Your task to perform on an android device: Add macbook pro 15 inch to the cart on newegg.com, then select checkout. Image 0: 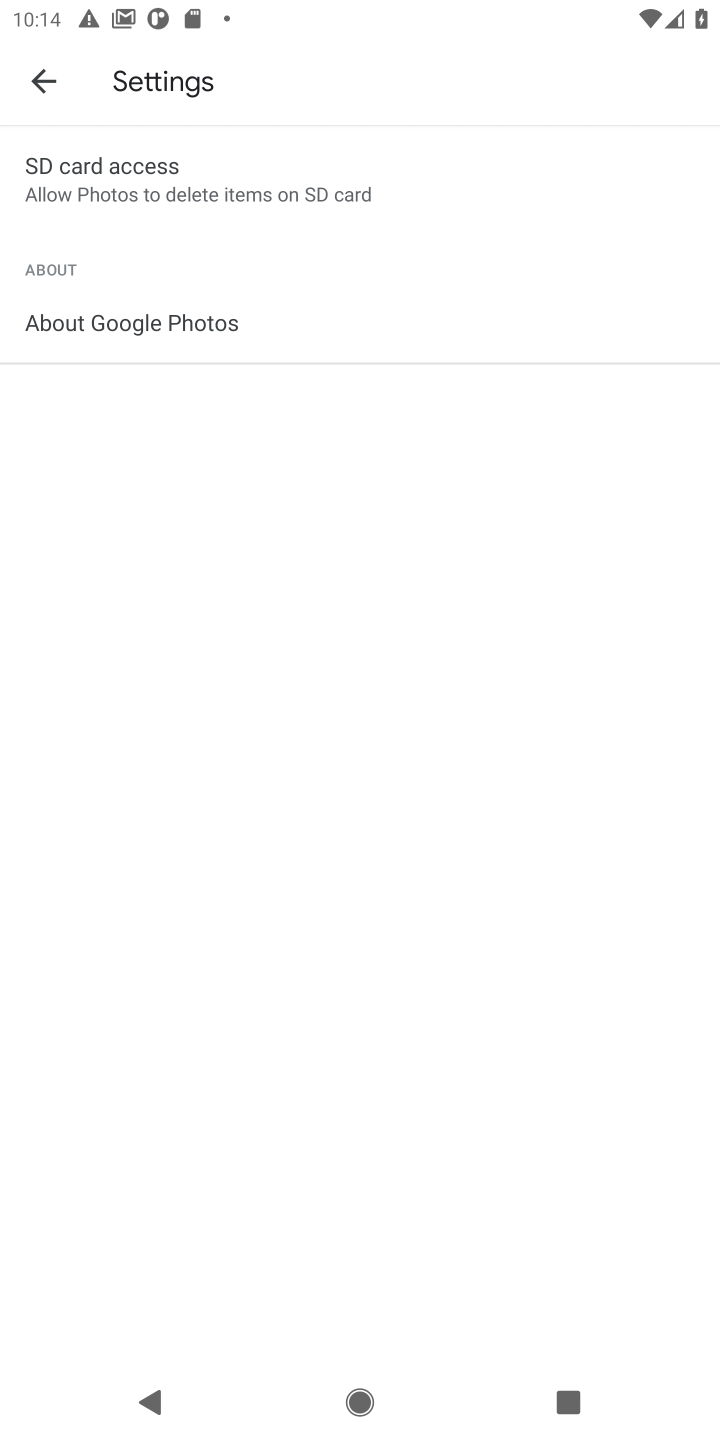
Step 0: press home button
Your task to perform on an android device: Add macbook pro 15 inch to the cart on newegg.com, then select checkout. Image 1: 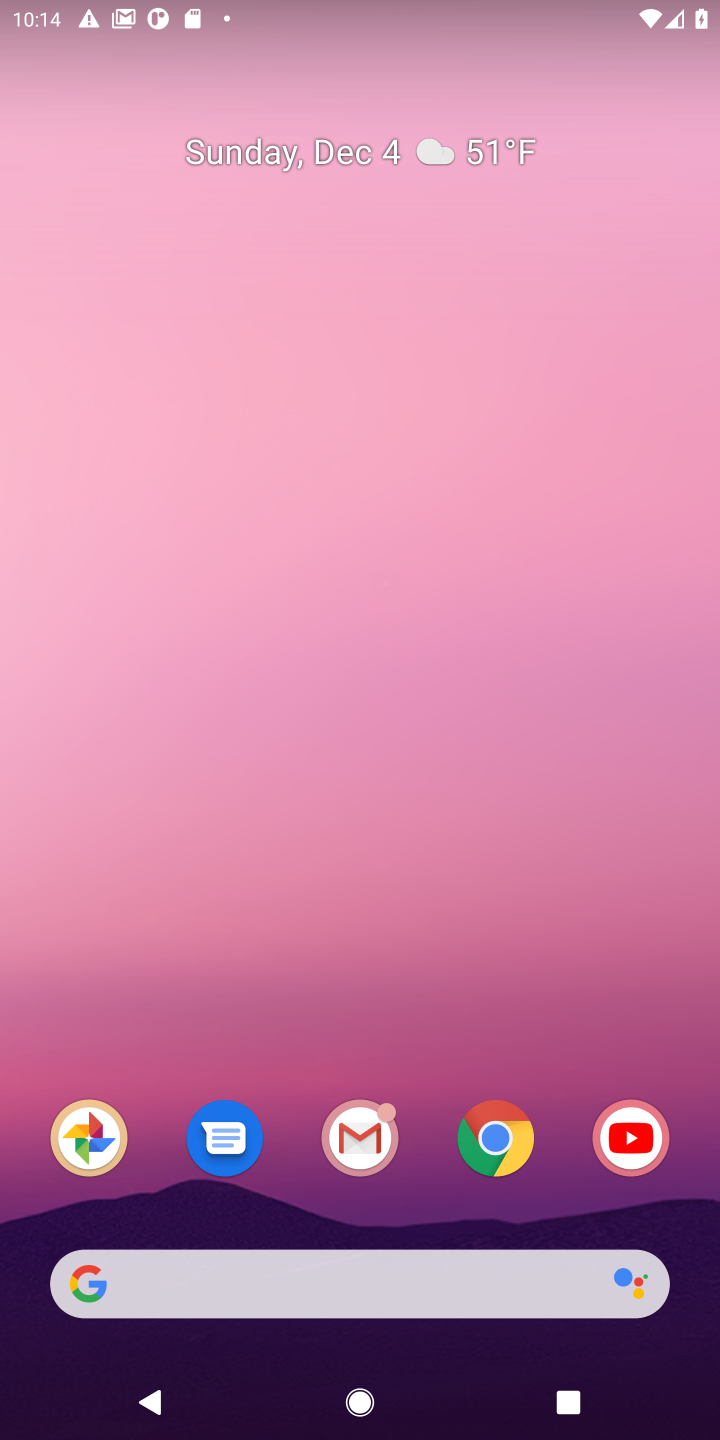
Step 1: click (500, 1131)
Your task to perform on an android device: Add macbook pro 15 inch to the cart on newegg.com, then select checkout. Image 2: 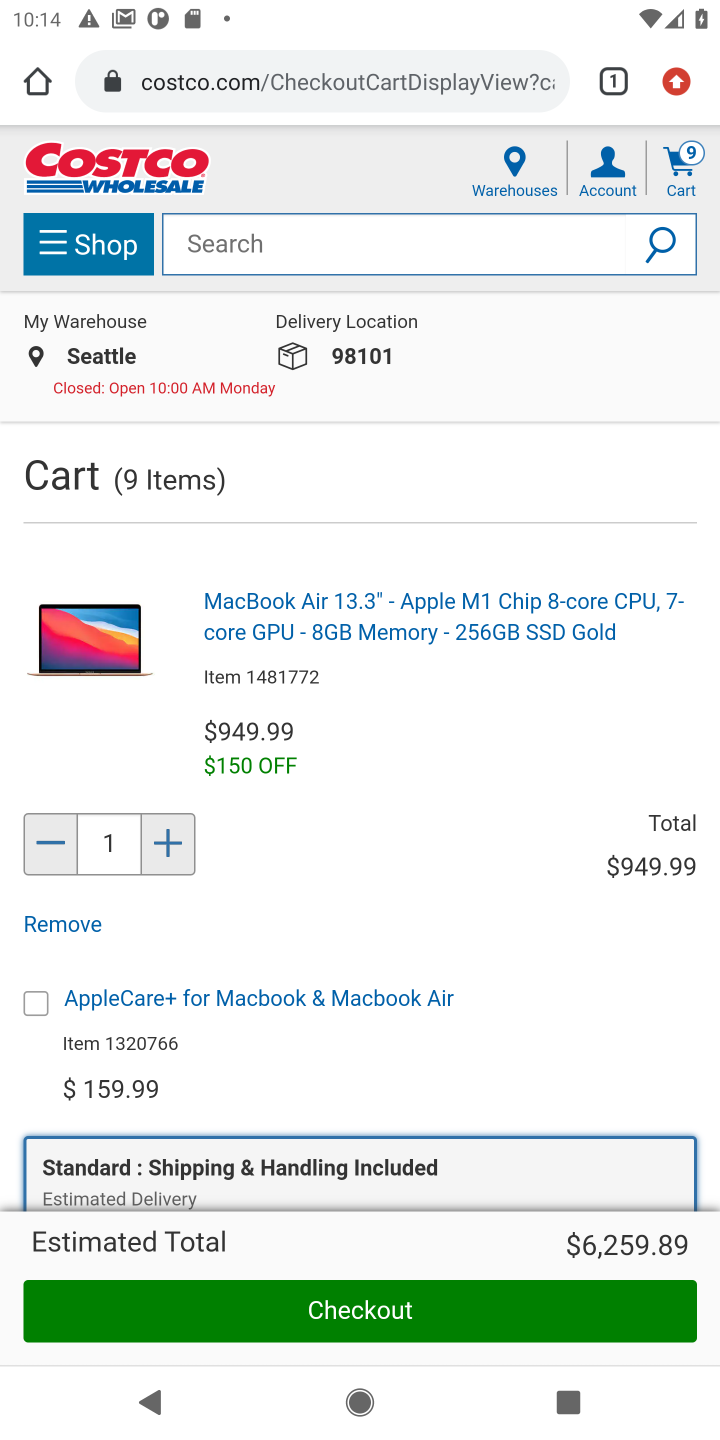
Step 2: click (379, 70)
Your task to perform on an android device: Add macbook pro 15 inch to the cart on newegg.com, then select checkout. Image 3: 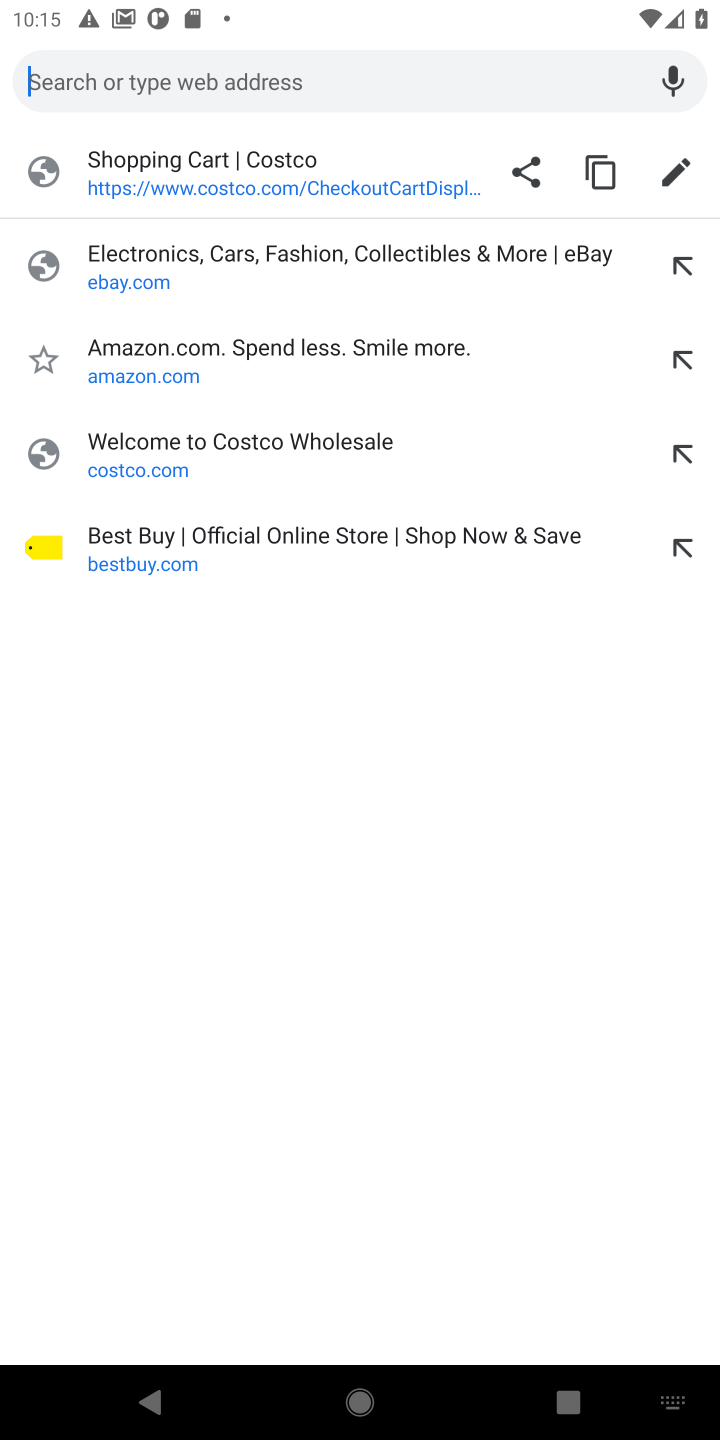
Step 3: type "newegg.com"
Your task to perform on an android device: Add macbook pro 15 inch to the cart on newegg.com, then select checkout. Image 4: 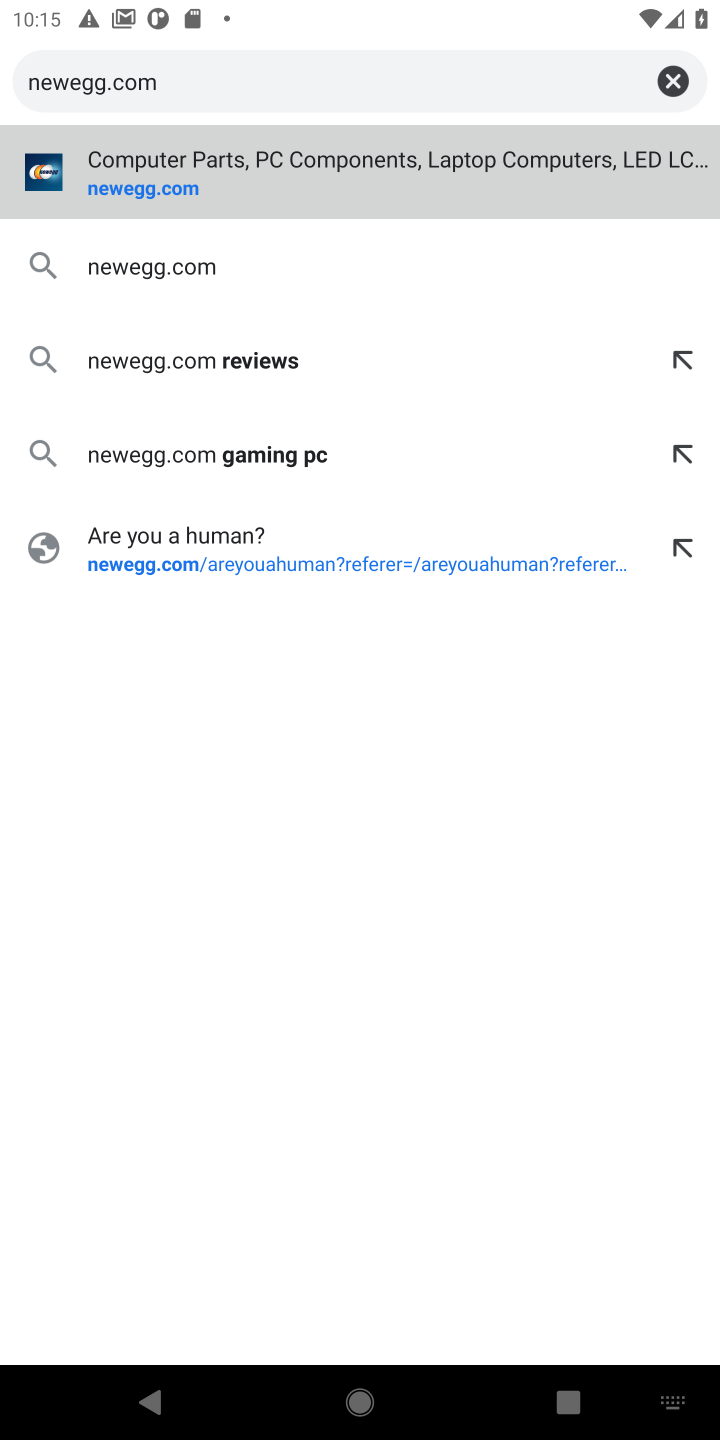
Step 4: press enter
Your task to perform on an android device: Add macbook pro 15 inch to the cart on newegg.com, then select checkout. Image 5: 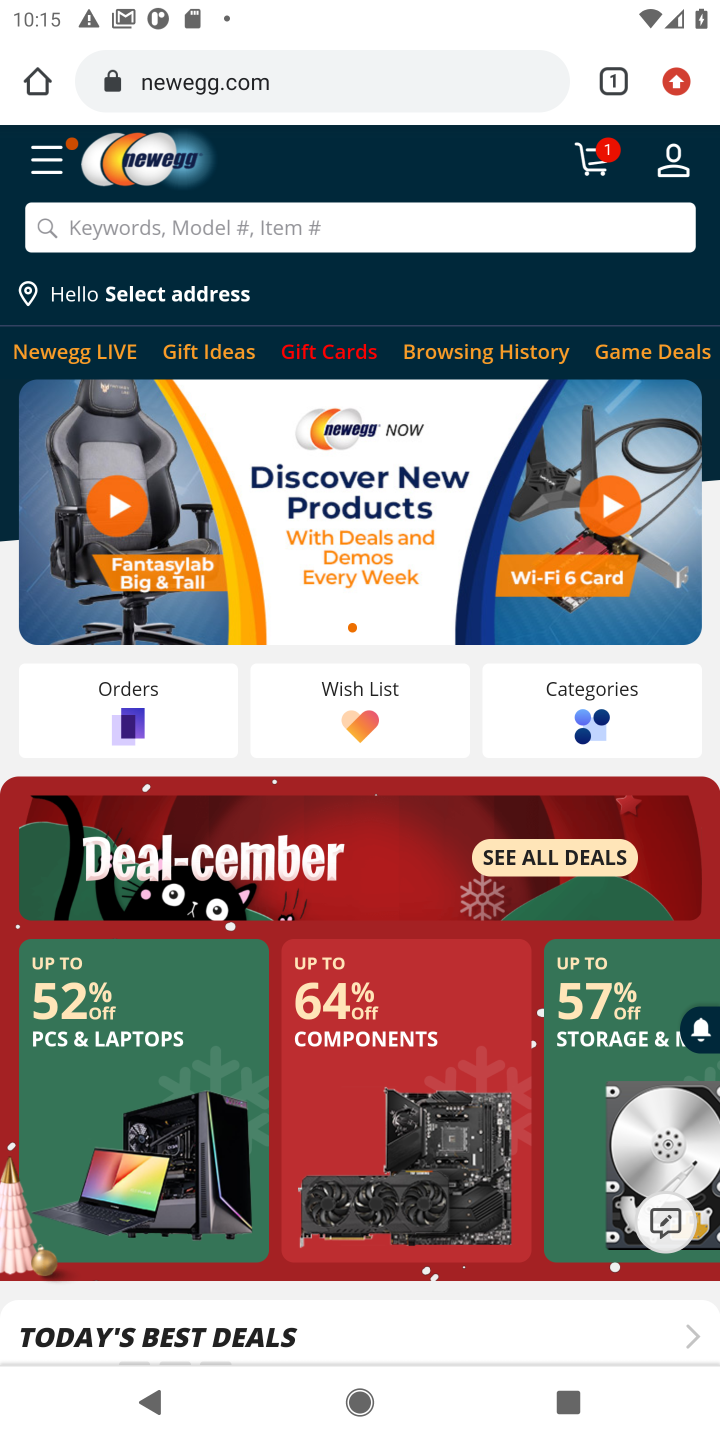
Step 5: click (598, 167)
Your task to perform on an android device: Add macbook pro 15 inch to the cart on newegg.com, then select checkout. Image 6: 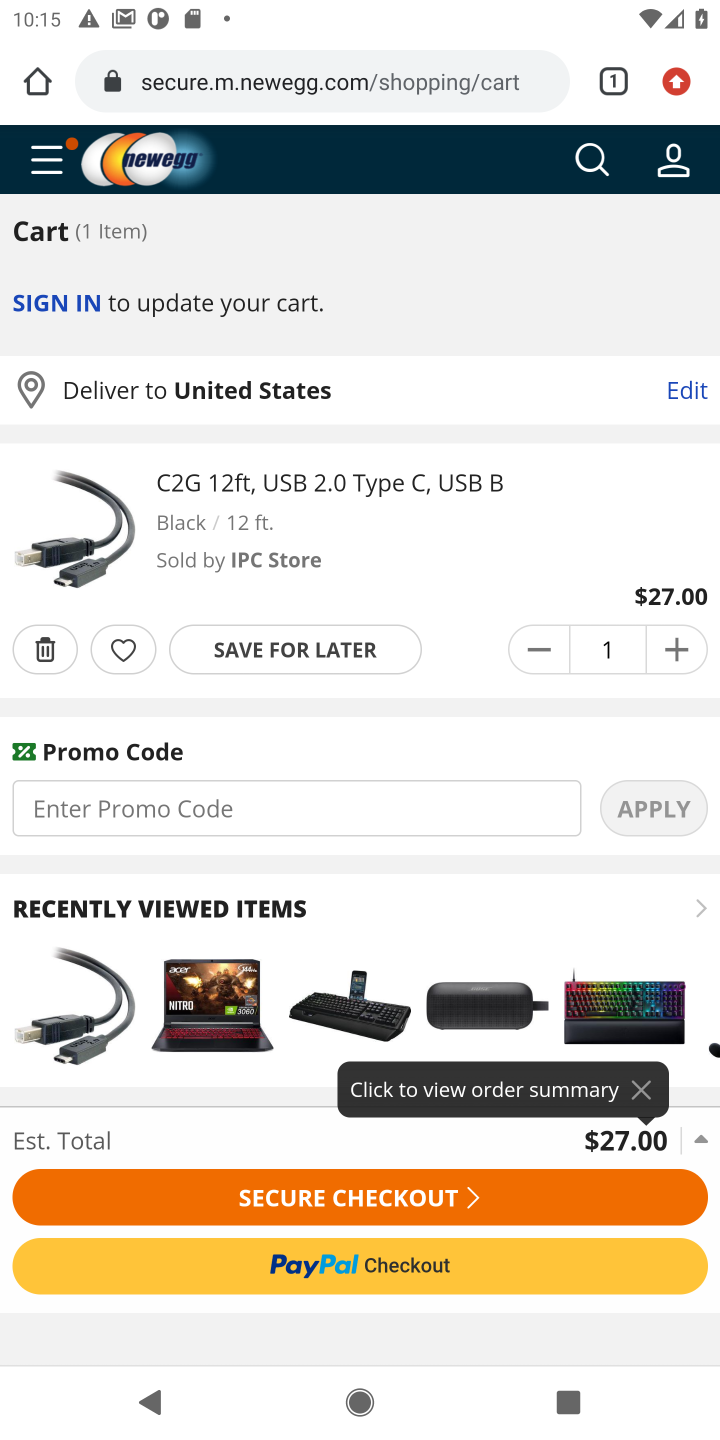
Step 6: click (587, 160)
Your task to perform on an android device: Add macbook pro 15 inch to the cart on newegg.com, then select checkout. Image 7: 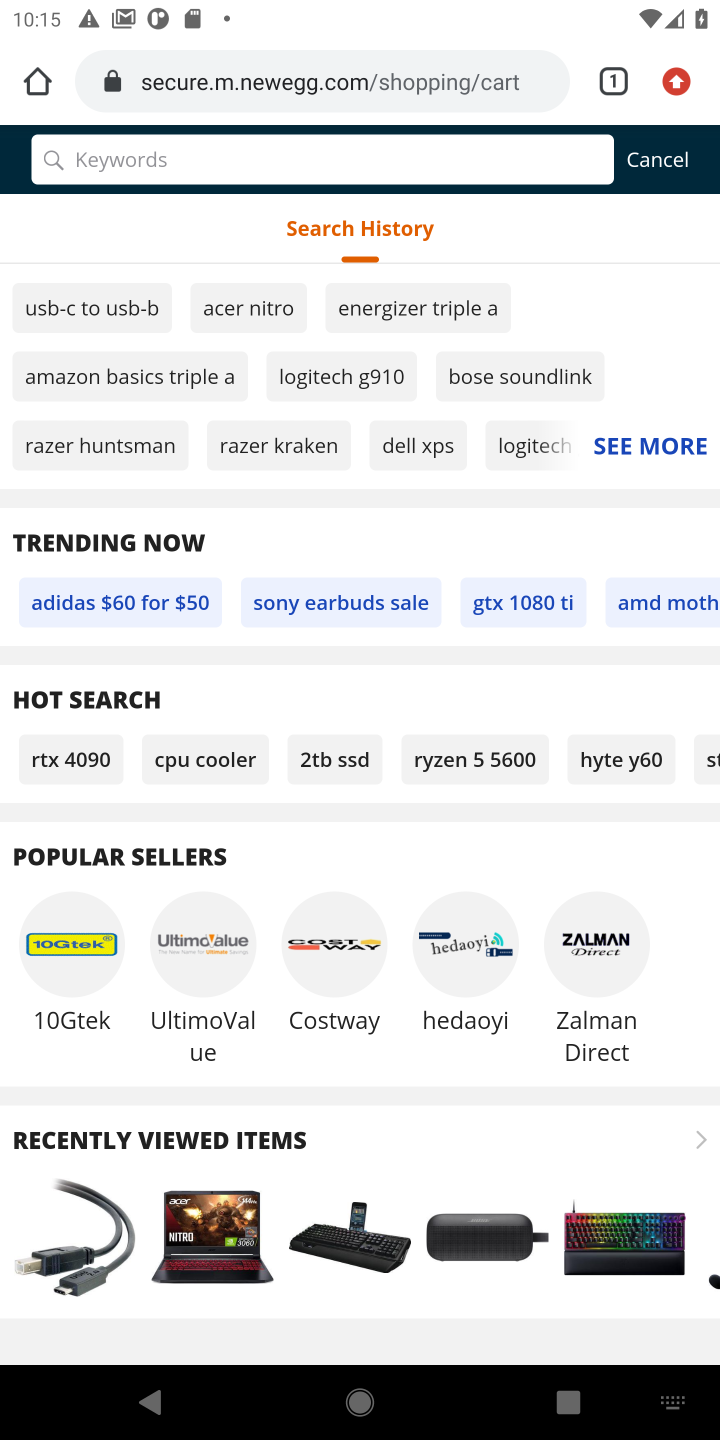
Step 7: type "macbook pro 15 inch"
Your task to perform on an android device: Add macbook pro 15 inch to the cart on newegg.com, then select checkout. Image 8: 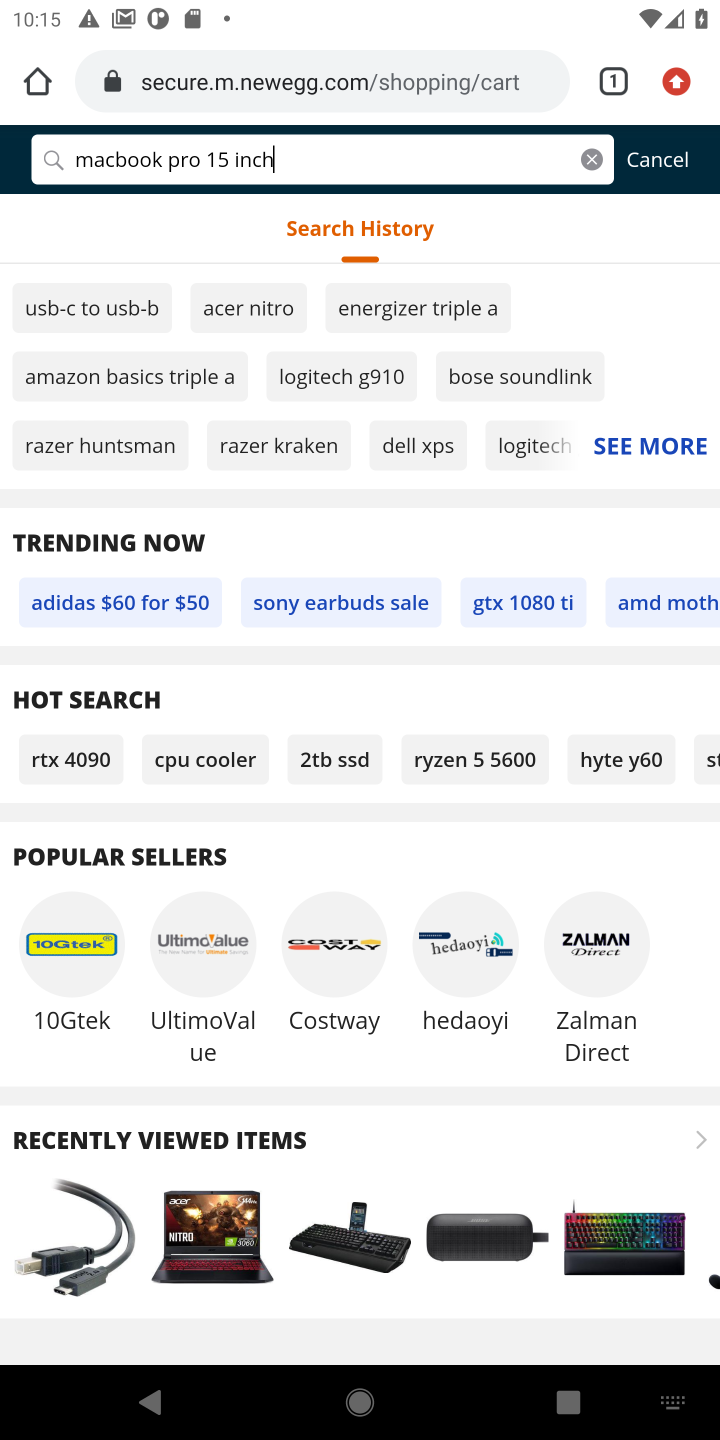
Step 8: press enter
Your task to perform on an android device: Add macbook pro 15 inch to the cart on newegg.com, then select checkout. Image 9: 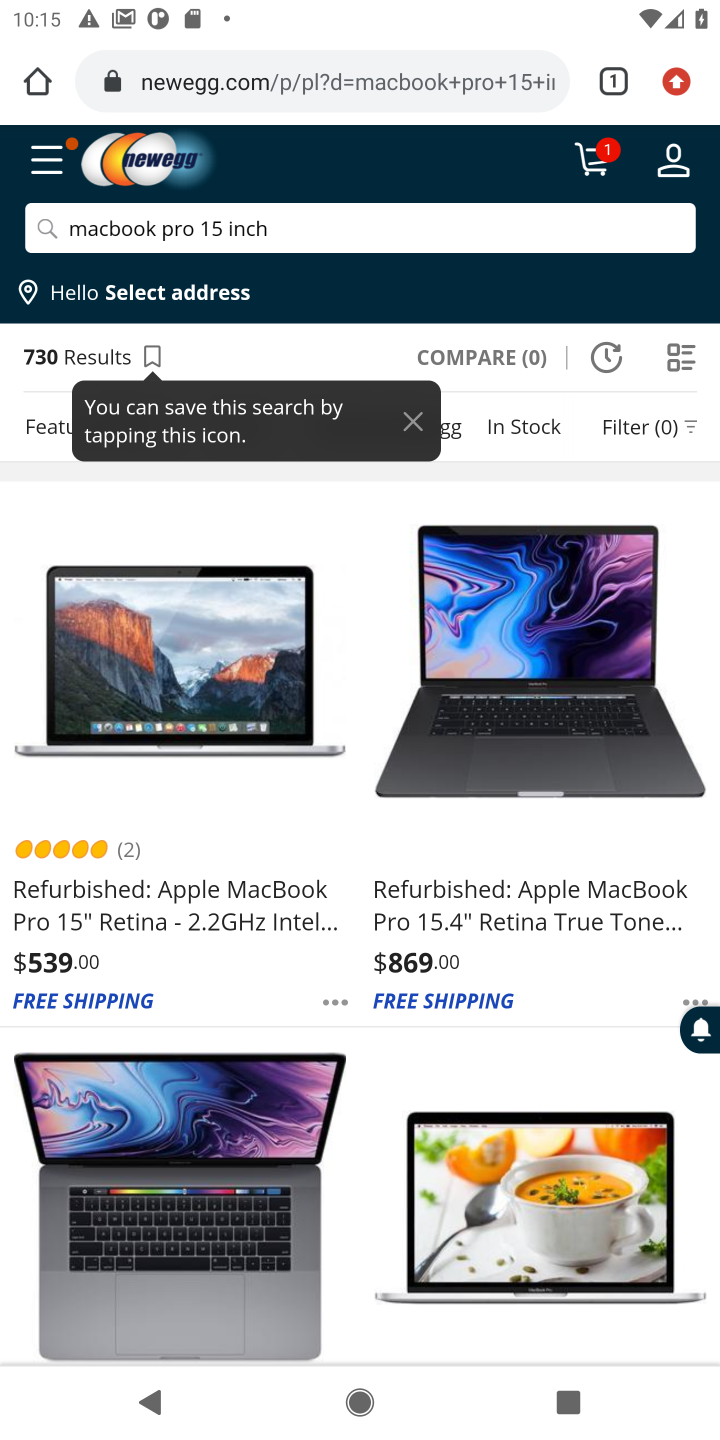
Step 9: click (248, 704)
Your task to perform on an android device: Add macbook pro 15 inch to the cart on newegg.com, then select checkout. Image 10: 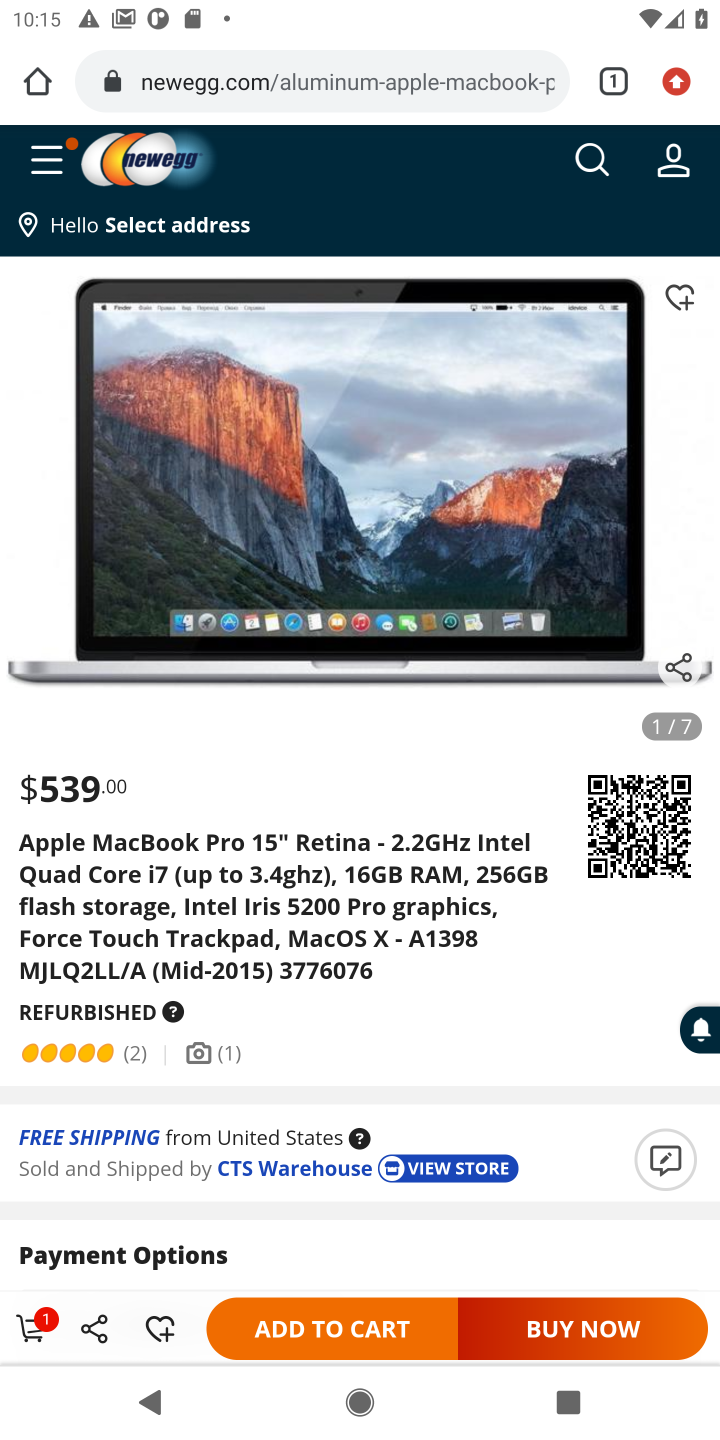
Step 10: click (349, 1324)
Your task to perform on an android device: Add macbook pro 15 inch to the cart on newegg.com, then select checkout. Image 11: 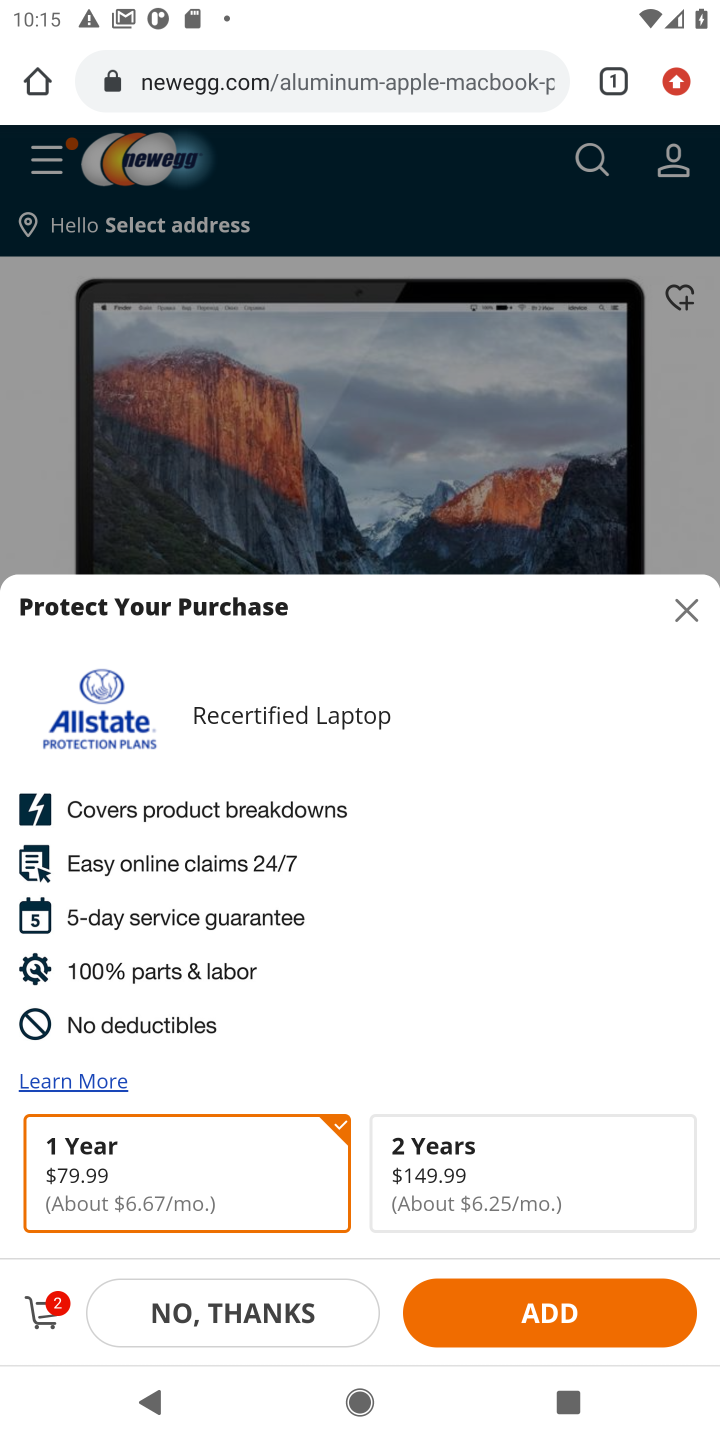
Step 11: click (35, 1317)
Your task to perform on an android device: Add macbook pro 15 inch to the cart on newegg.com, then select checkout. Image 12: 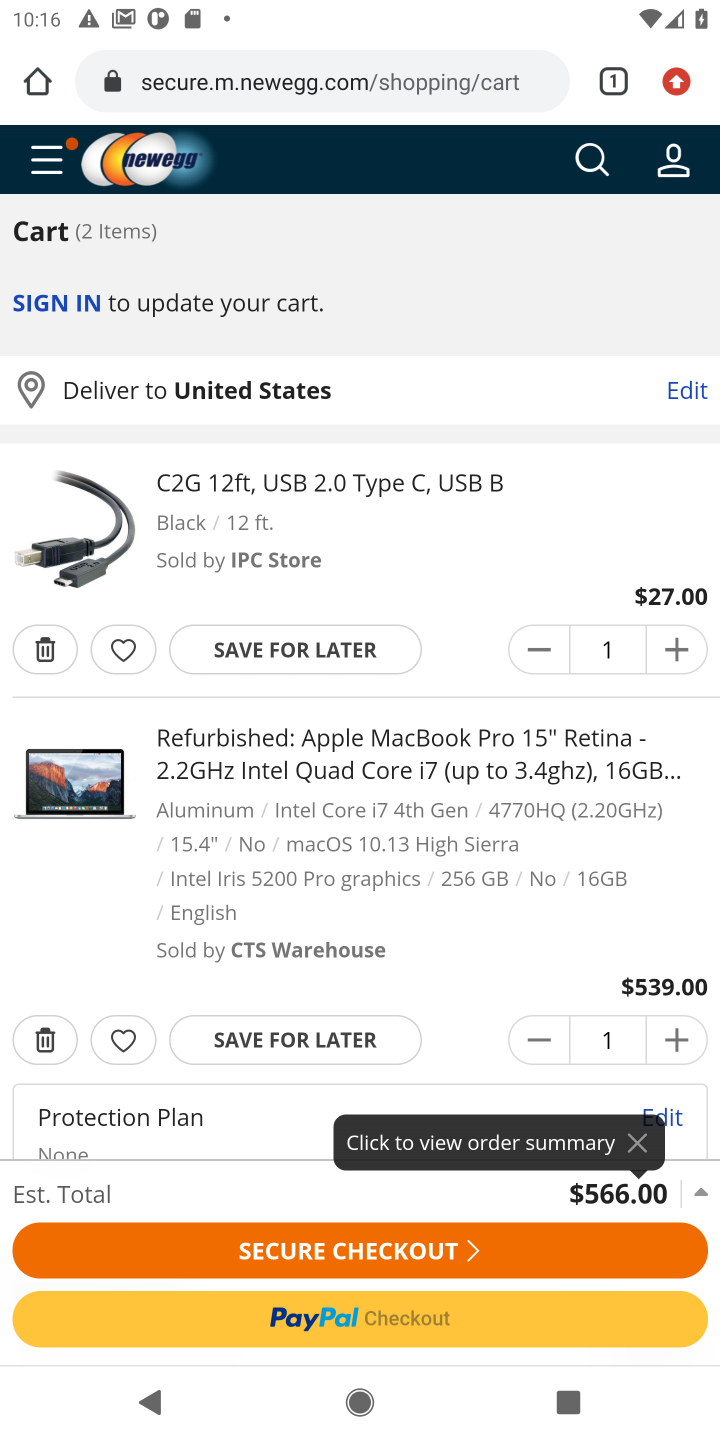
Step 12: click (377, 1253)
Your task to perform on an android device: Add macbook pro 15 inch to the cart on newegg.com, then select checkout. Image 13: 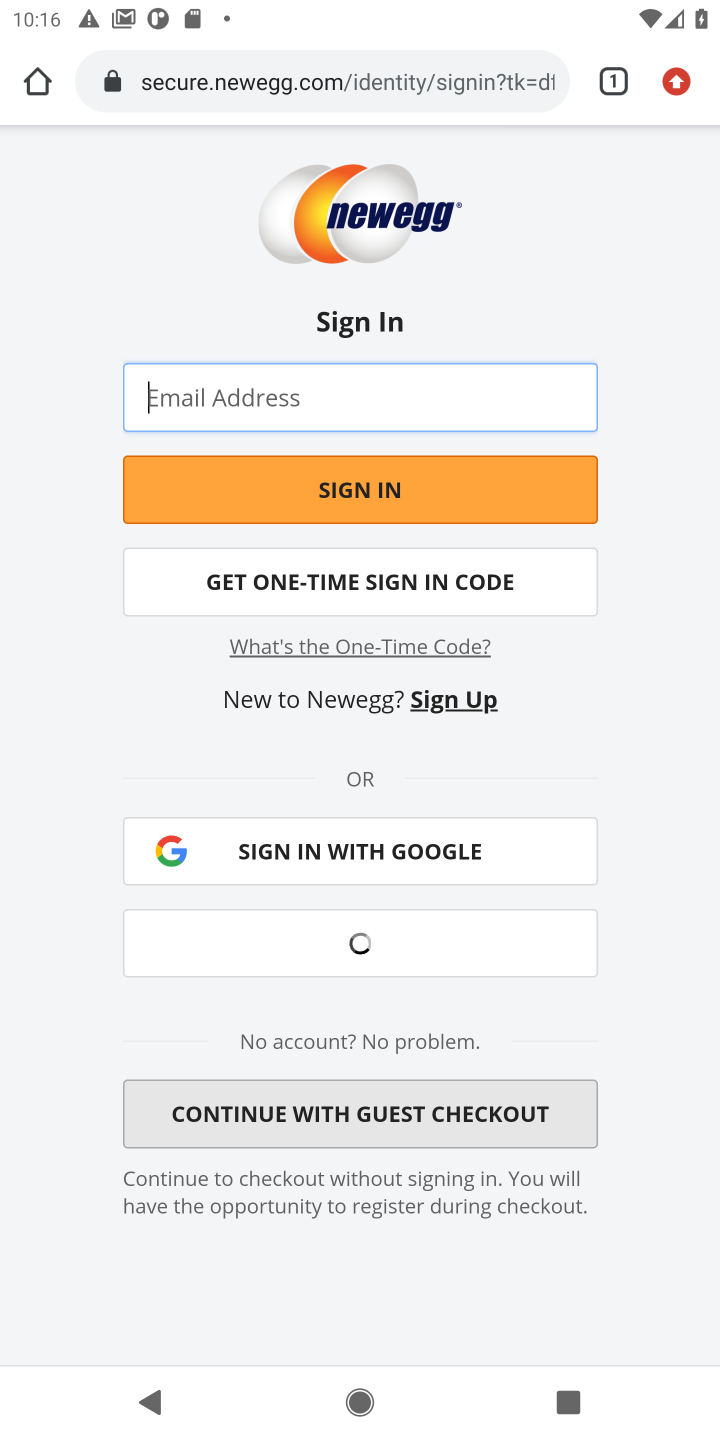
Step 13: task complete